Your task to perform on an android device: change alarm snooze length Image 0: 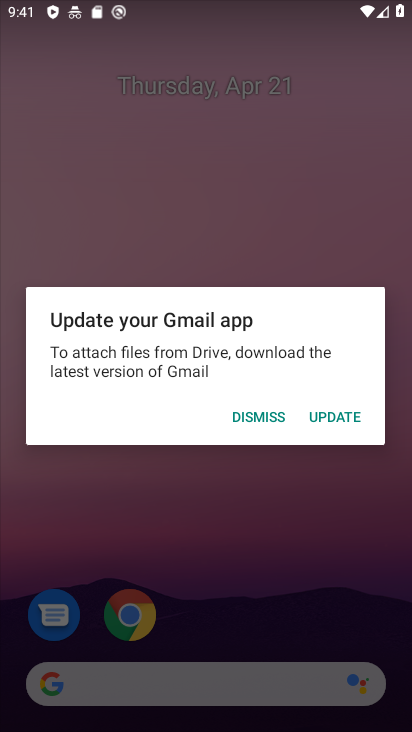
Step 0: press home button
Your task to perform on an android device: change alarm snooze length Image 1: 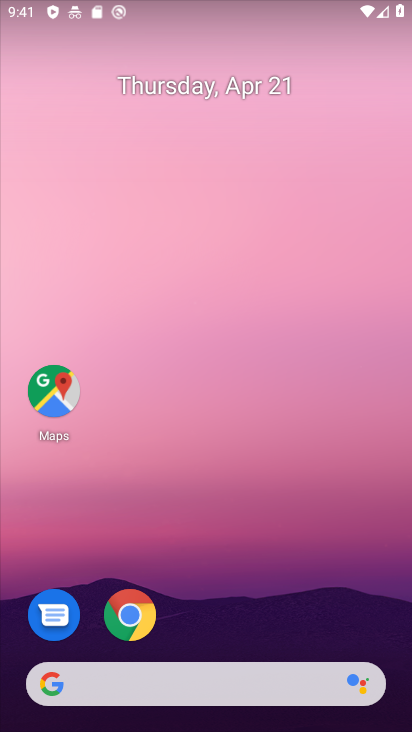
Step 1: drag from (203, 650) to (204, 128)
Your task to perform on an android device: change alarm snooze length Image 2: 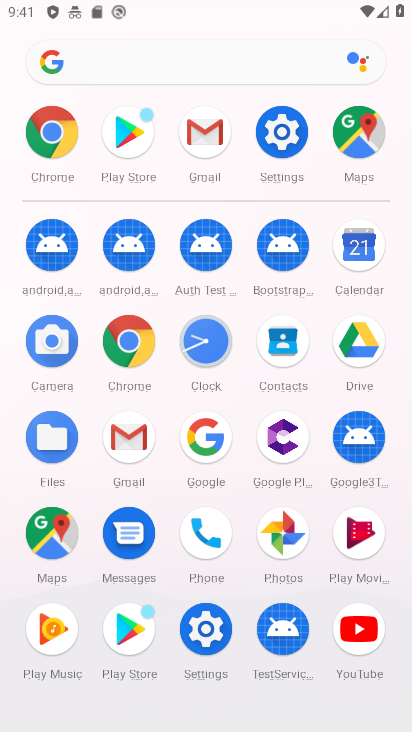
Step 2: click (206, 345)
Your task to perform on an android device: change alarm snooze length Image 3: 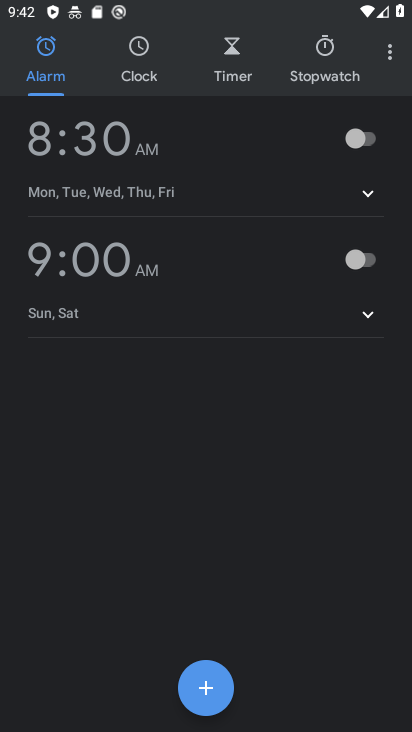
Step 3: click (389, 51)
Your task to perform on an android device: change alarm snooze length Image 4: 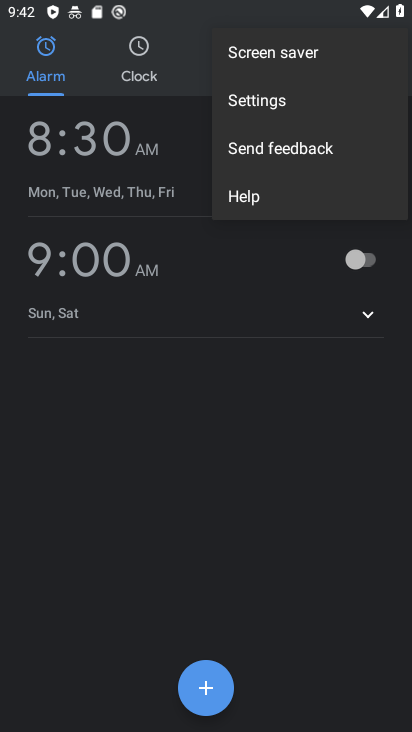
Step 4: click (254, 96)
Your task to perform on an android device: change alarm snooze length Image 5: 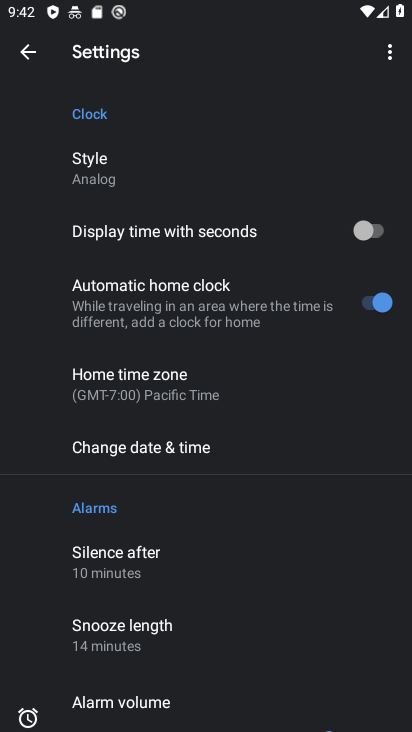
Step 5: click (136, 640)
Your task to perform on an android device: change alarm snooze length Image 6: 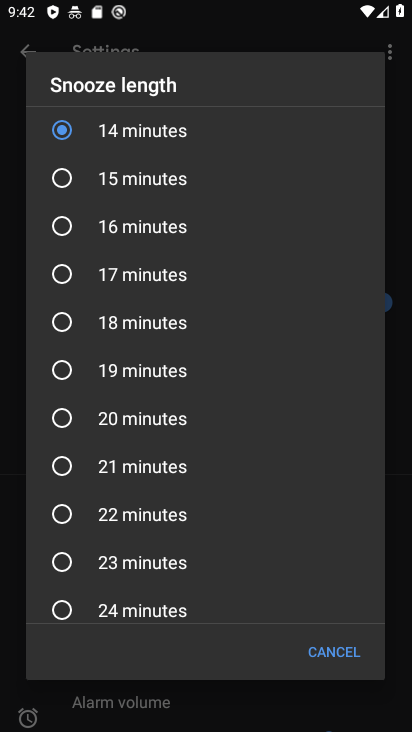
Step 6: click (58, 418)
Your task to perform on an android device: change alarm snooze length Image 7: 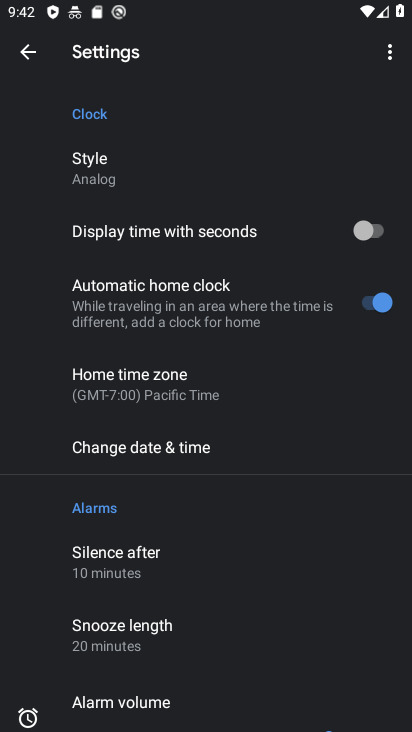
Step 7: task complete